Your task to perform on an android device: change notifications settings Image 0: 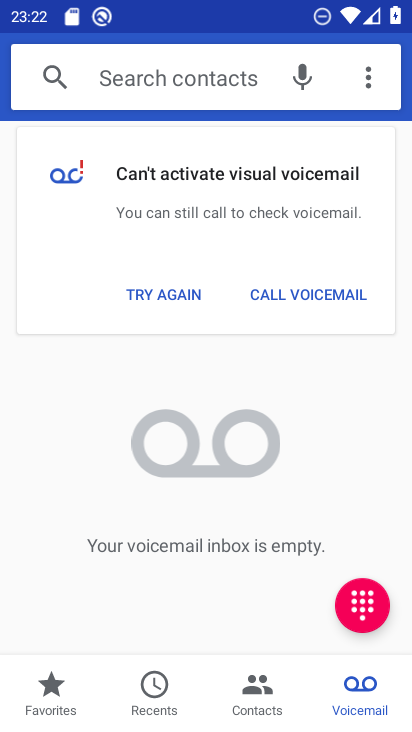
Step 0: press home button
Your task to perform on an android device: change notifications settings Image 1: 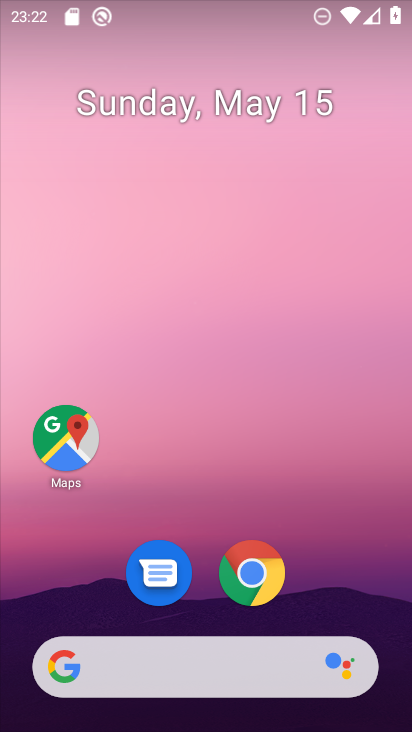
Step 1: drag from (337, 562) to (397, 15)
Your task to perform on an android device: change notifications settings Image 2: 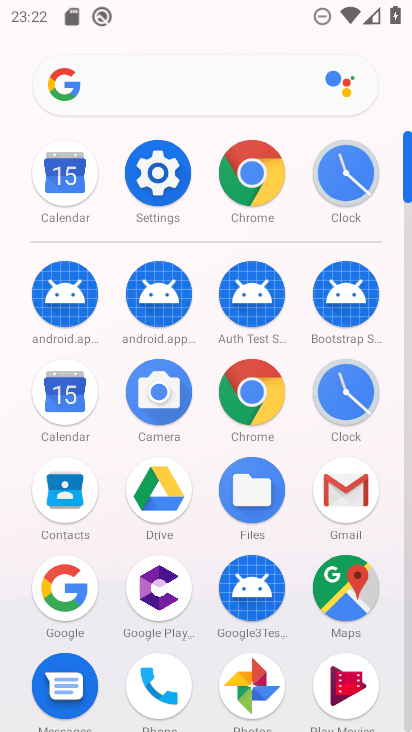
Step 2: click (170, 166)
Your task to perform on an android device: change notifications settings Image 3: 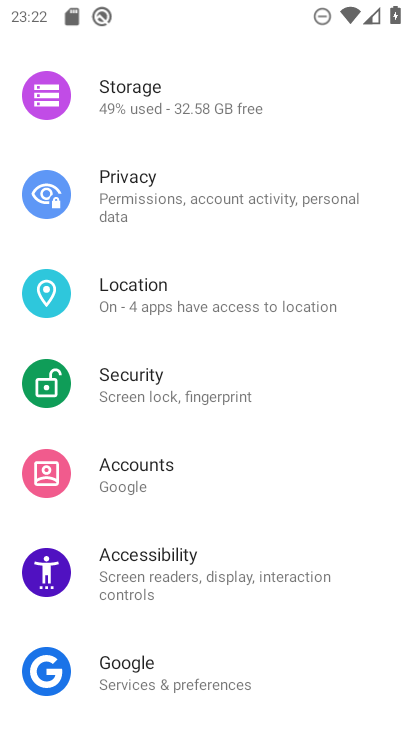
Step 3: drag from (182, 182) to (169, 715)
Your task to perform on an android device: change notifications settings Image 4: 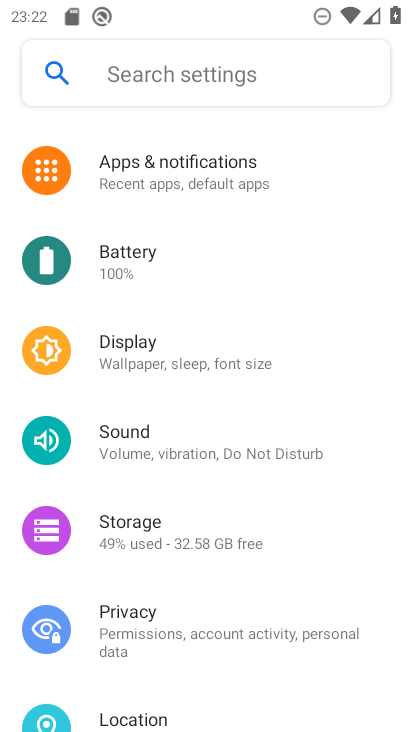
Step 4: click (200, 176)
Your task to perform on an android device: change notifications settings Image 5: 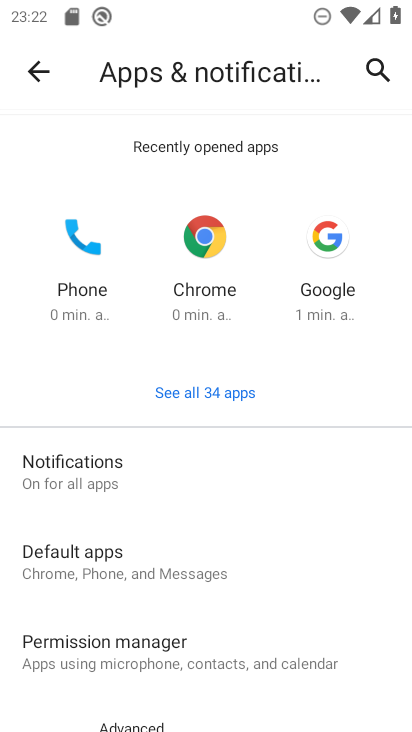
Step 5: drag from (203, 578) to (214, 202)
Your task to perform on an android device: change notifications settings Image 6: 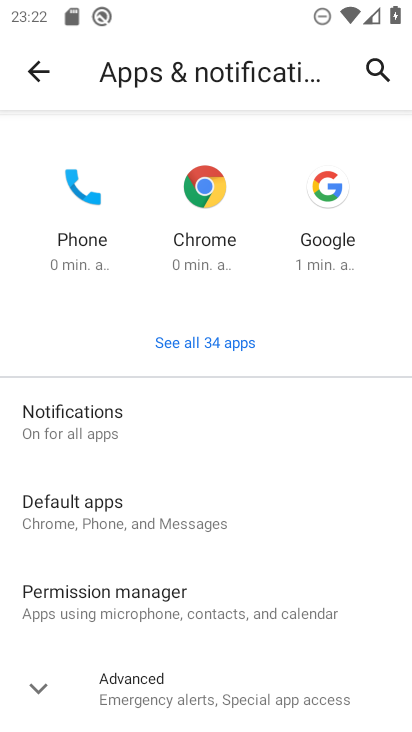
Step 6: click (36, 402)
Your task to perform on an android device: change notifications settings Image 7: 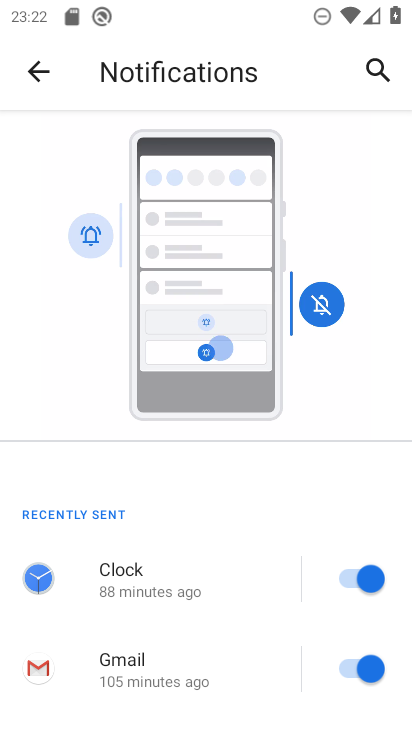
Step 7: drag from (195, 670) to (303, 204)
Your task to perform on an android device: change notifications settings Image 8: 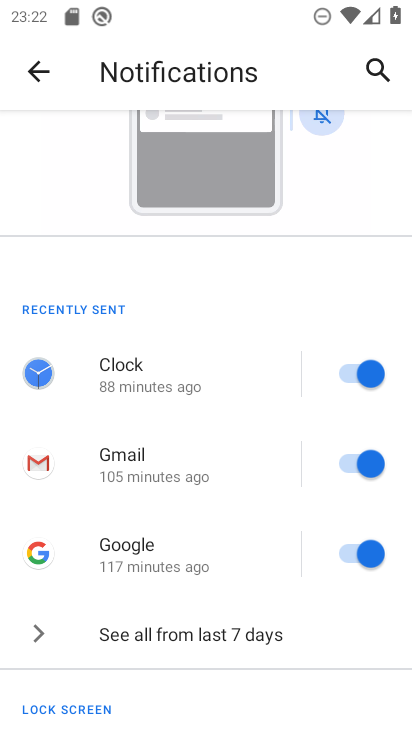
Step 8: drag from (241, 686) to (257, 282)
Your task to perform on an android device: change notifications settings Image 9: 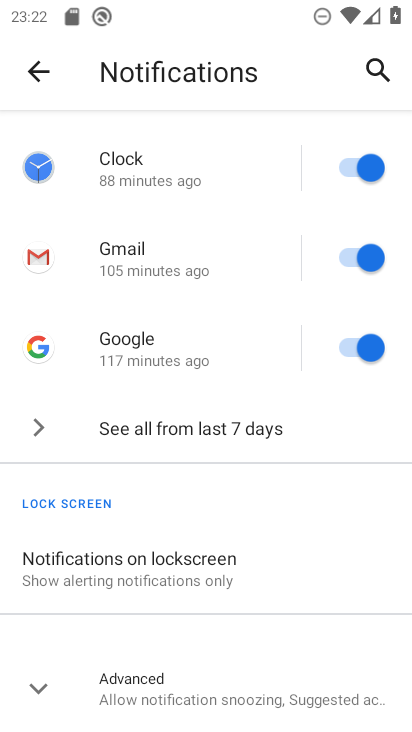
Step 9: click (347, 343)
Your task to perform on an android device: change notifications settings Image 10: 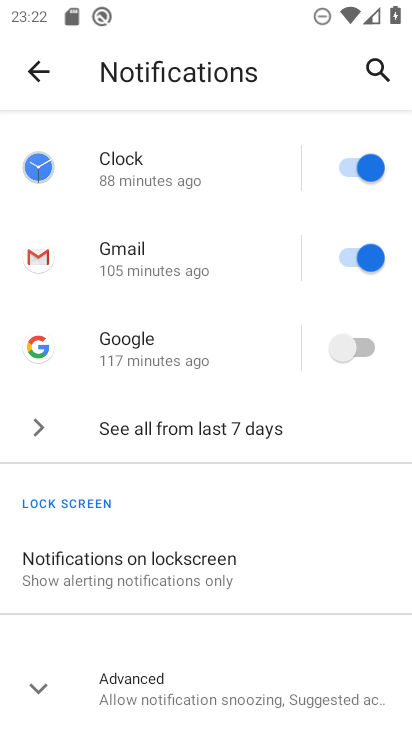
Step 10: drag from (240, 234) to (221, 729)
Your task to perform on an android device: change notifications settings Image 11: 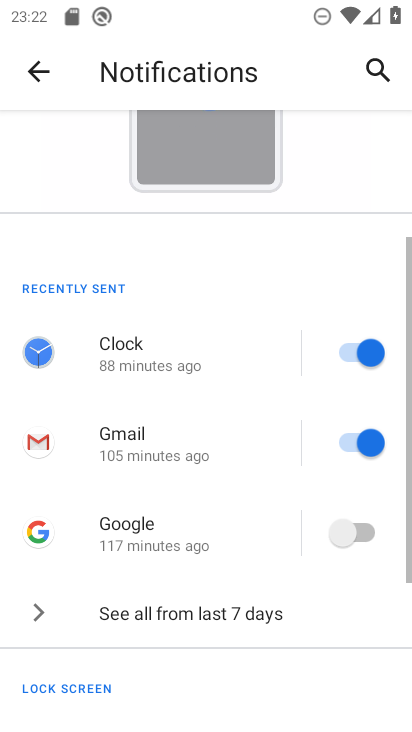
Step 11: drag from (289, 317) to (277, 710)
Your task to perform on an android device: change notifications settings Image 12: 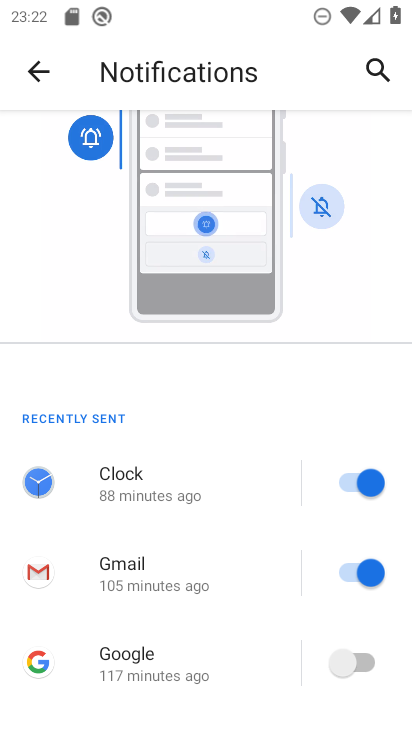
Step 12: click (393, 469)
Your task to perform on an android device: change notifications settings Image 13: 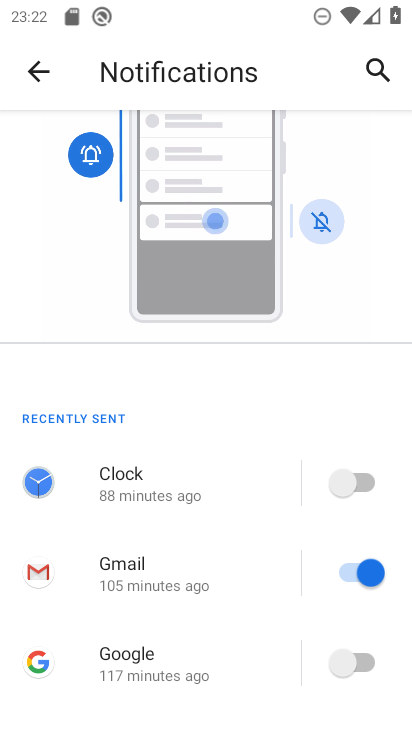
Step 13: task complete